Your task to perform on an android device: Go to accessibility settings Image 0: 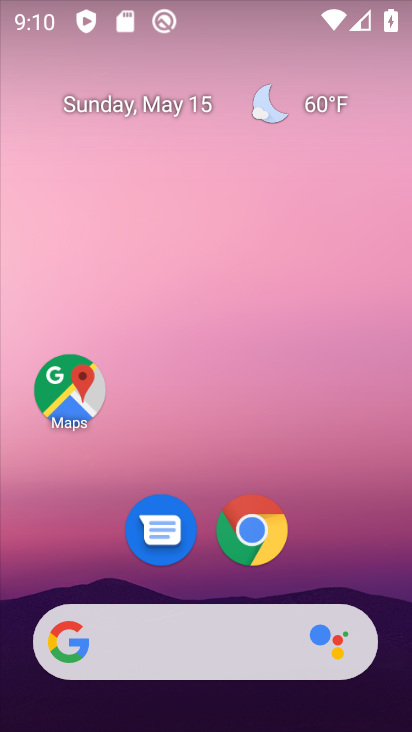
Step 0: drag from (360, 564) to (353, 128)
Your task to perform on an android device: Go to accessibility settings Image 1: 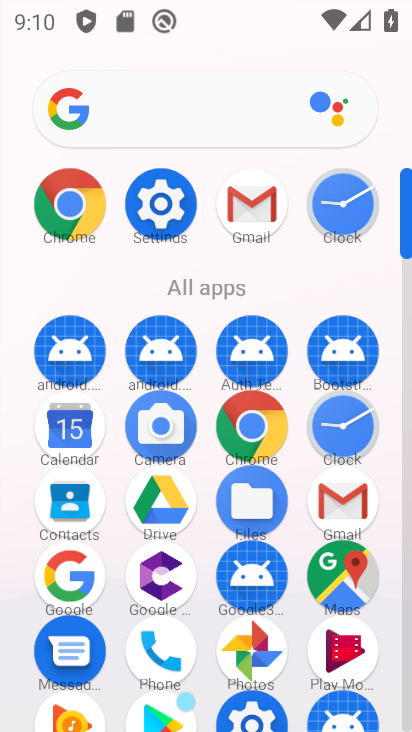
Step 1: click (174, 200)
Your task to perform on an android device: Go to accessibility settings Image 2: 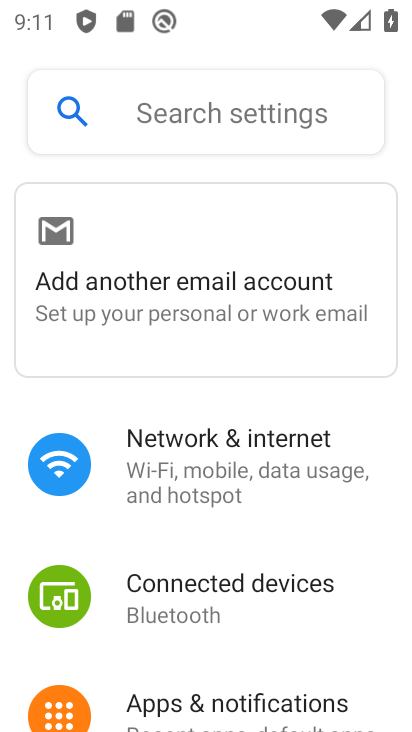
Step 2: drag from (377, 629) to (368, 454)
Your task to perform on an android device: Go to accessibility settings Image 3: 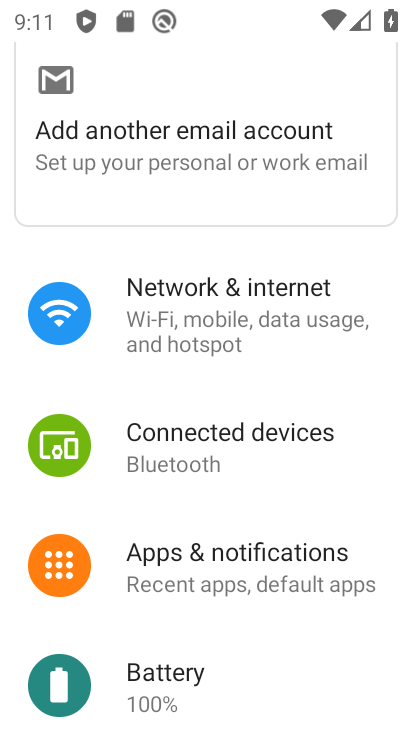
Step 3: drag from (348, 669) to (348, 504)
Your task to perform on an android device: Go to accessibility settings Image 4: 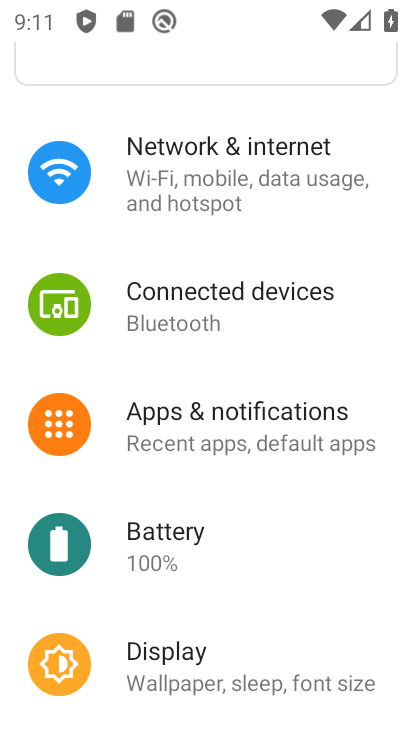
Step 4: drag from (376, 697) to (376, 499)
Your task to perform on an android device: Go to accessibility settings Image 5: 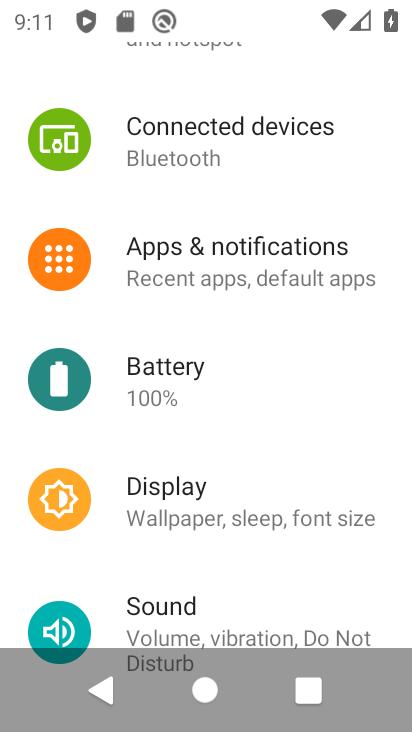
Step 5: drag from (359, 597) to (347, 430)
Your task to perform on an android device: Go to accessibility settings Image 6: 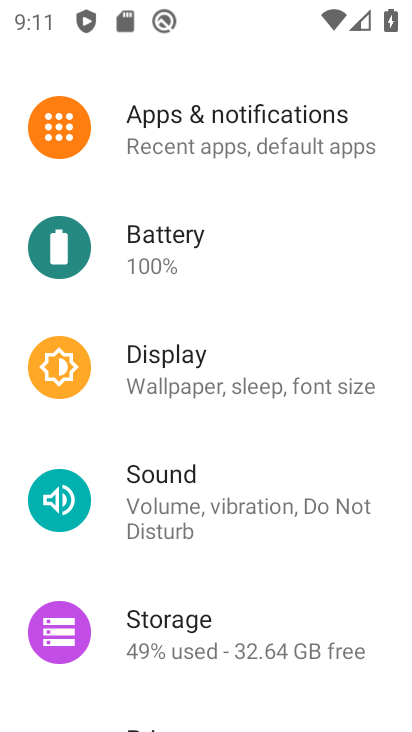
Step 6: drag from (352, 680) to (351, 512)
Your task to perform on an android device: Go to accessibility settings Image 7: 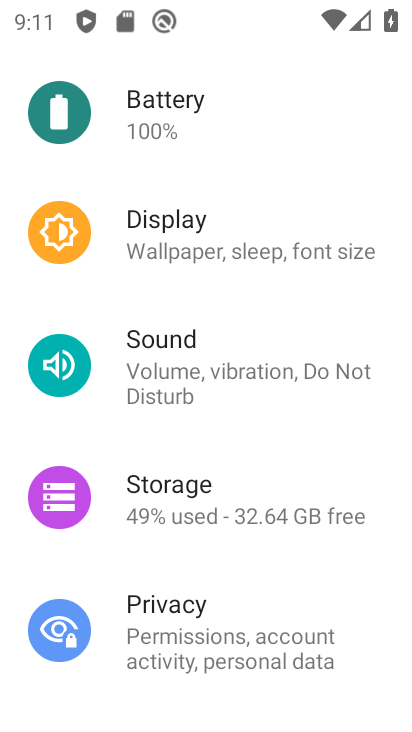
Step 7: drag from (370, 693) to (366, 539)
Your task to perform on an android device: Go to accessibility settings Image 8: 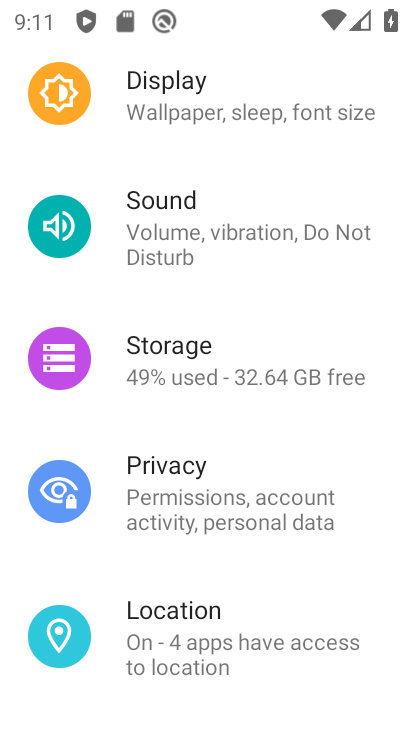
Step 8: drag from (359, 696) to (367, 538)
Your task to perform on an android device: Go to accessibility settings Image 9: 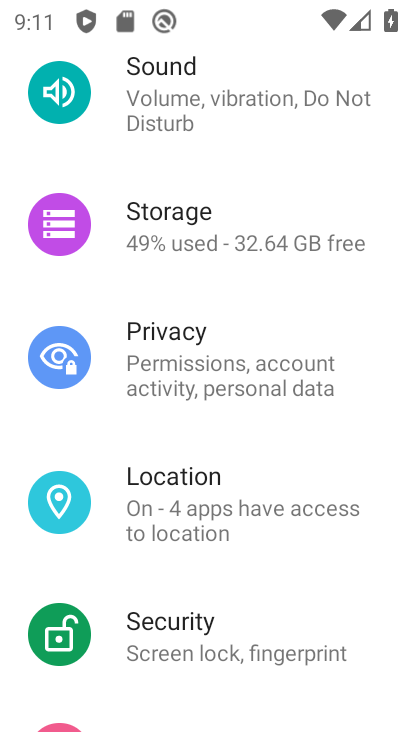
Step 9: drag from (374, 616) to (380, 463)
Your task to perform on an android device: Go to accessibility settings Image 10: 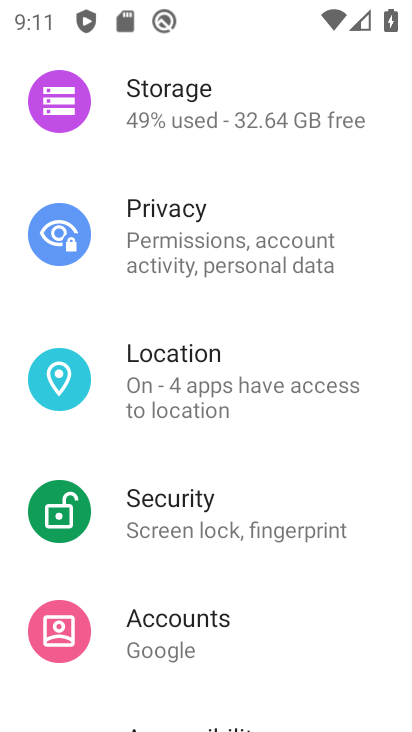
Step 10: drag from (361, 653) to (358, 478)
Your task to perform on an android device: Go to accessibility settings Image 11: 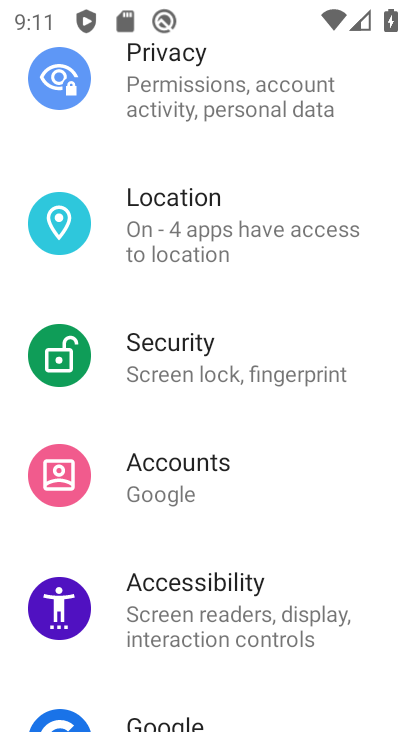
Step 11: drag from (357, 687) to (373, 452)
Your task to perform on an android device: Go to accessibility settings Image 12: 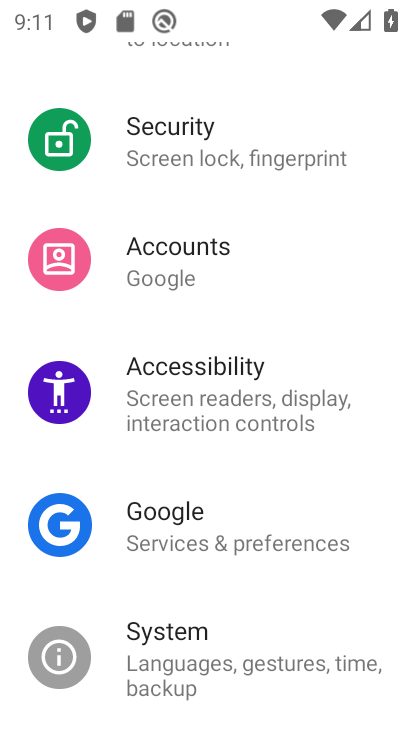
Step 12: click (253, 413)
Your task to perform on an android device: Go to accessibility settings Image 13: 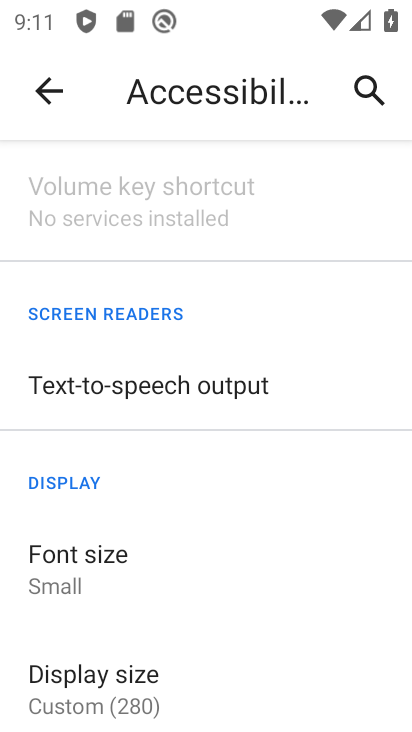
Step 13: task complete